Your task to perform on an android device: open app "Google Play Games" (install if not already installed) Image 0: 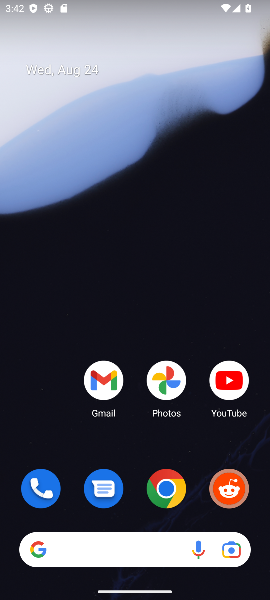
Step 0: drag from (135, 520) to (148, 203)
Your task to perform on an android device: open app "Google Play Games" (install if not already installed) Image 1: 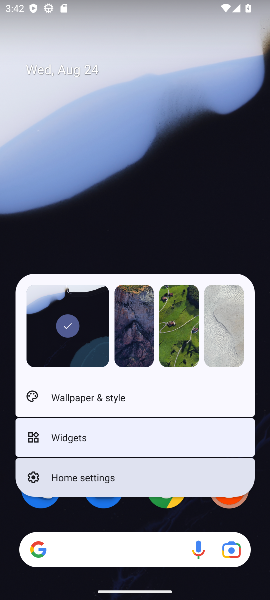
Step 1: click (148, 203)
Your task to perform on an android device: open app "Google Play Games" (install if not already installed) Image 2: 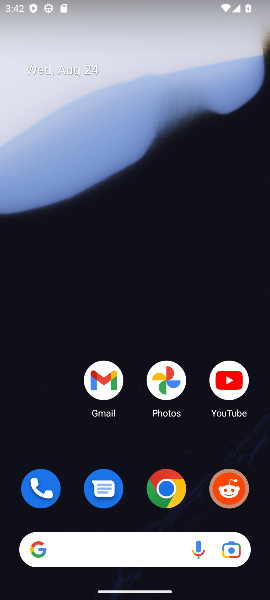
Step 2: drag from (127, 525) to (104, 22)
Your task to perform on an android device: open app "Google Play Games" (install if not already installed) Image 3: 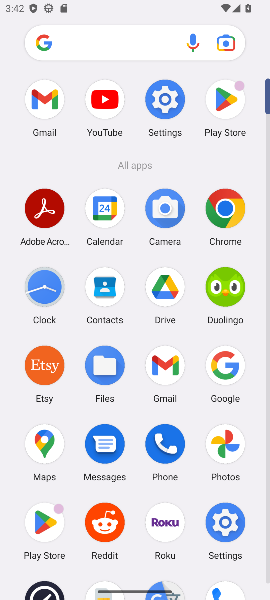
Step 3: click (225, 114)
Your task to perform on an android device: open app "Google Play Games" (install if not already installed) Image 4: 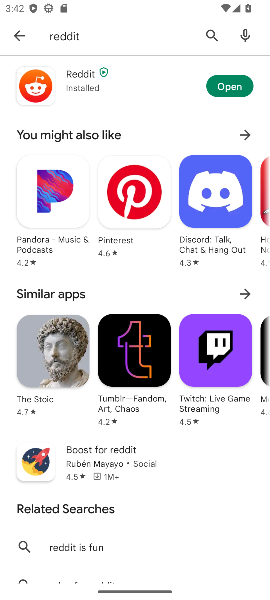
Step 4: click (148, 45)
Your task to perform on an android device: open app "Google Play Games" (install if not already installed) Image 5: 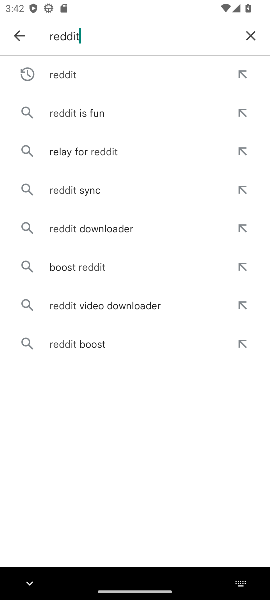
Step 5: click (243, 32)
Your task to perform on an android device: open app "Google Play Games" (install if not already installed) Image 6: 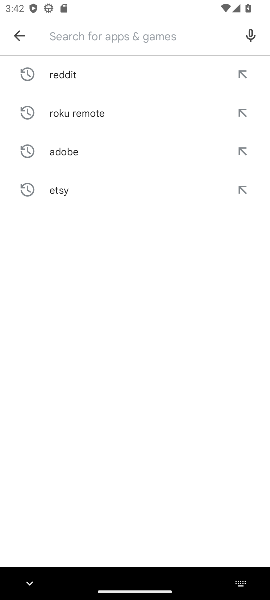
Step 6: type "google pay"
Your task to perform on an android device: open app "Google Play Games" (install if not already installed) Image 7: 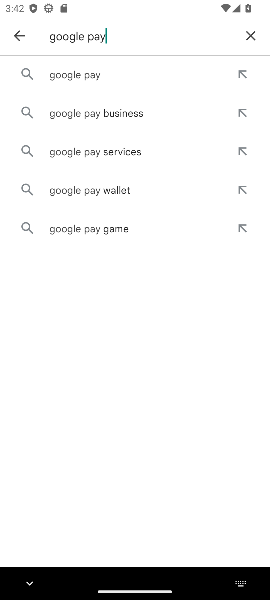
Step 7: click (101, 76)
Your task to perform on an android device: open app "Google Play Games" (install if not already installed) Image 8: 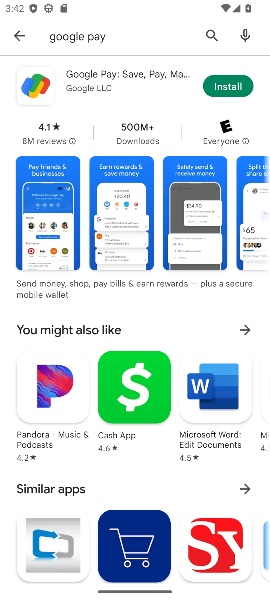
Step 8: click (218, 89)
Your task to perform on an android device: open app "Google Play Games" (install if not already installed) Image 9: 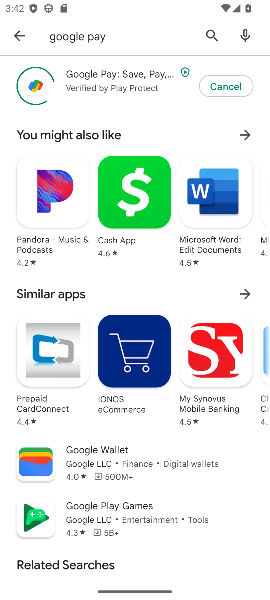
Step 9: click (207, 30)
Your task to perform on an android device: open app "Google Play Games" (install if not already installed) Image 10: 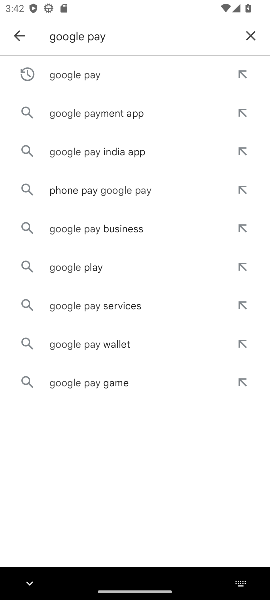
Step 10: click (248, 34)
Your task to perform on an android device: open app "Google Play Games" (install if not already installed) Image 11: 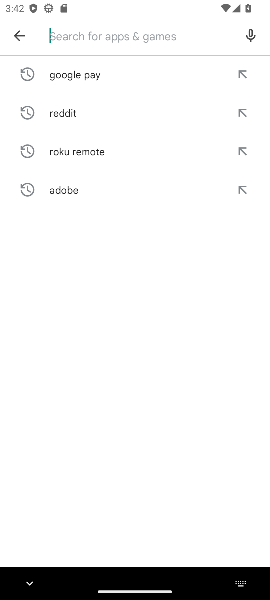
Step 11: type "google play game"
Your task to perform on an android device: open app "Google Play Games" (install if not already installed) Image 12: 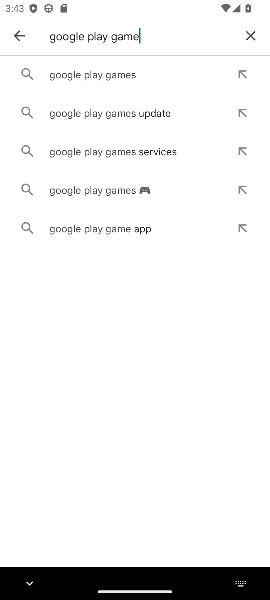
Step 12: click (95, 79)
Your task to perform on an android device: open app "Google Play Games" (install if not already installed) Image 13: 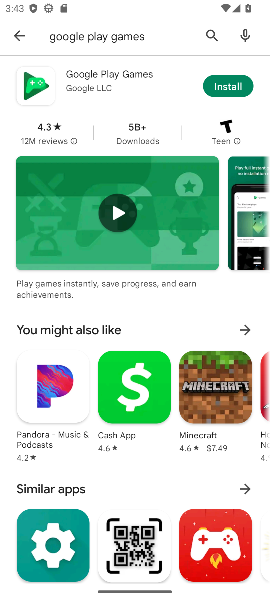
Step 13: click (226, 84)
Your task to perform on an android device: open app "Google Play Games" (install if not already installed) Image 14: 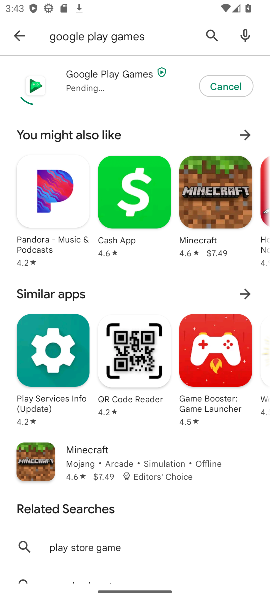
Step 14: task complete